Your task to perform on an android device: allow notifications from all sites in the chrome app Image 0: 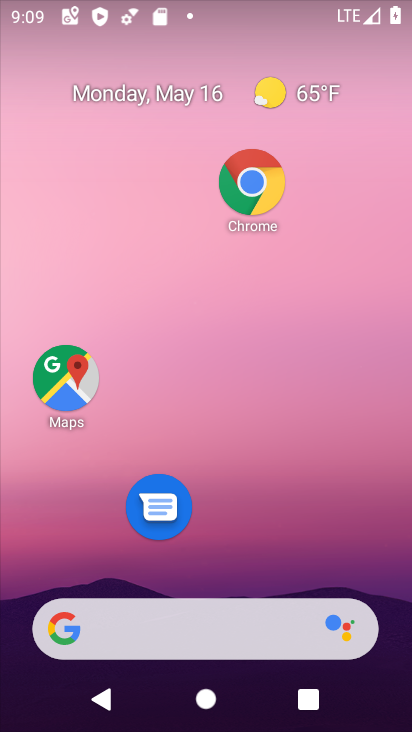
Step 0: drag from (230, 584) to (187, 19)
Your task to perform on an android device: allow notifications from all sites in the chrome app Image 1: 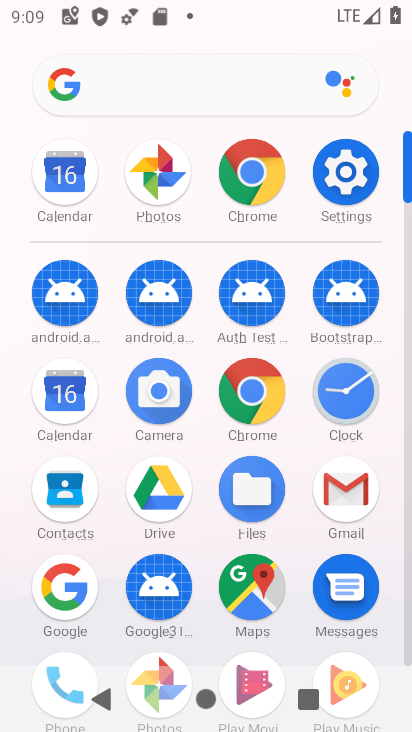
Step 1: click (238, 185)
Your task to perform on an android device: allow notifications from all sites in the chrome app Image 2: 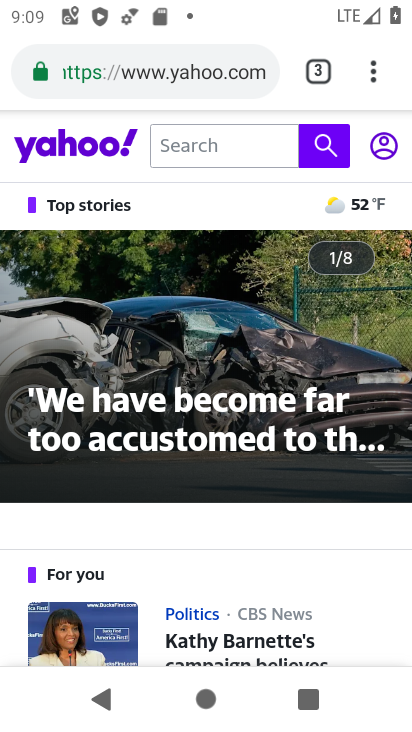
Step 2: click (366, 80)
Your task to perform on an android device: allow notifications from all sites in the chrome app Image 3: 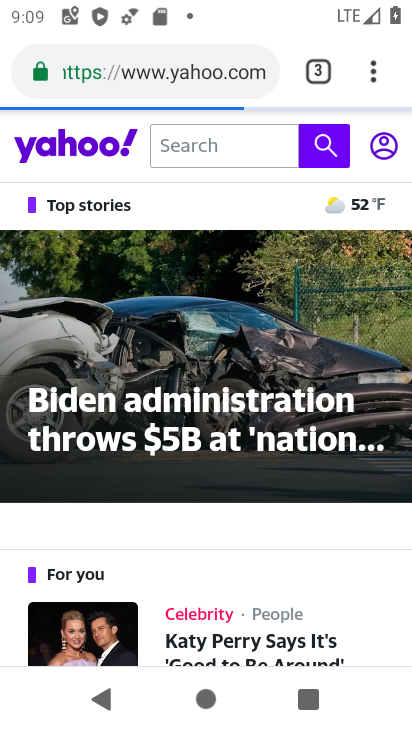
Step 3: drag from (367, 81) to (135, 494)
Your task to perform on an android device: allow notifications from all sites in the chrome app Image 4: 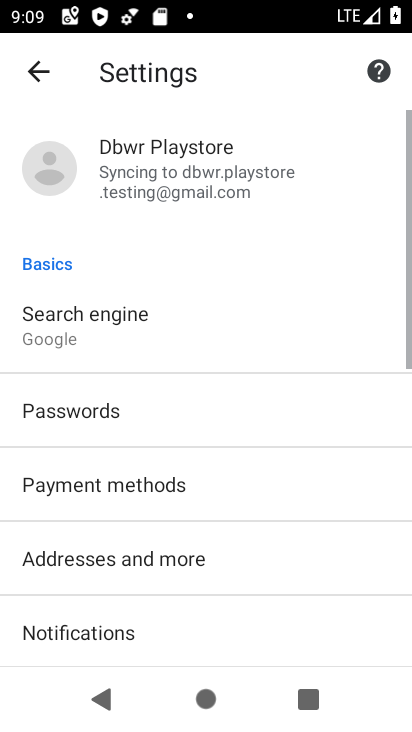
Step 4: drag from (160, 552) to (151, 365)
Your task to perform on an android device: allow notifications from all sites in the chrome app Image 5: 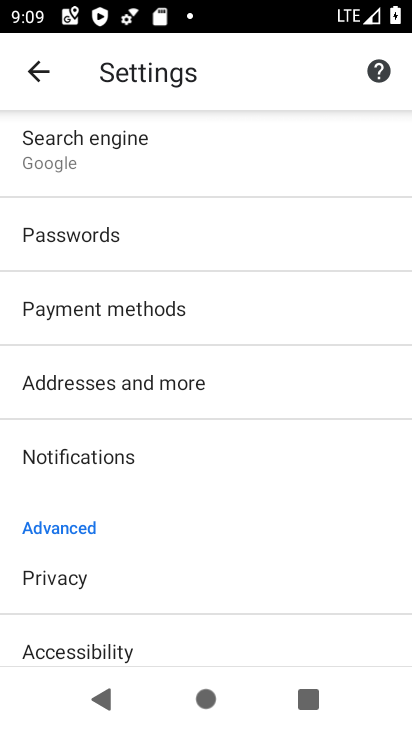
Step 5: drag from (115, 581) to (109, 165)
Your task to perform on an android device: allow notifications from all sites in the chrome app Image 6: 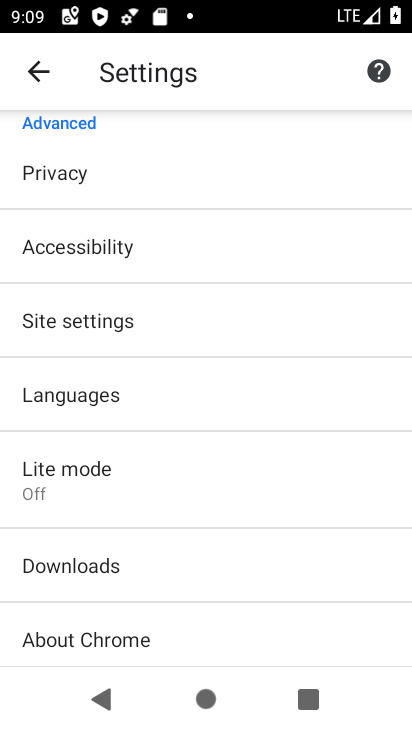
Step 6: click (68, 332)
Your task to perform on an android device: allow notifications from all sites in the chrome app Image 7: 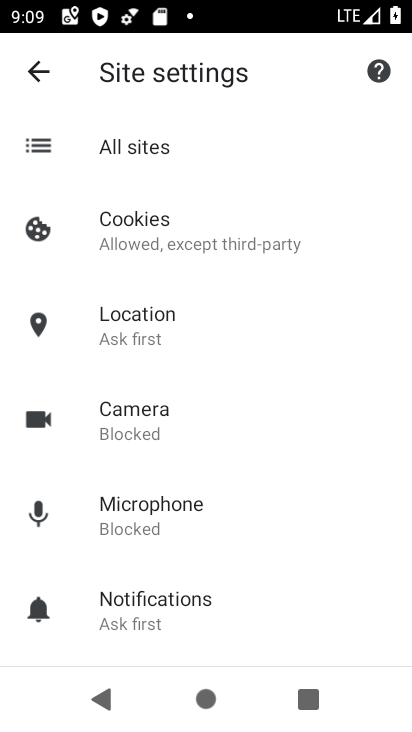
Step 7: click (183, 607)
Your task to perform on an android device: allow notifications from all sites in the chrome app Image 8: 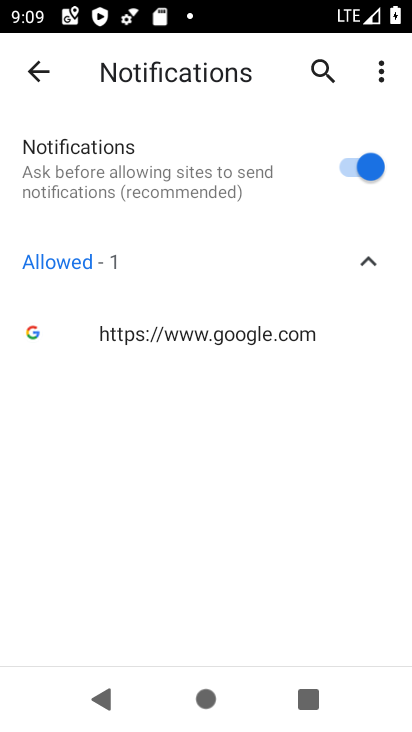
Step 8: task complete